Your task to perform on an android device: Show me the alarms in the clock app Image 0: 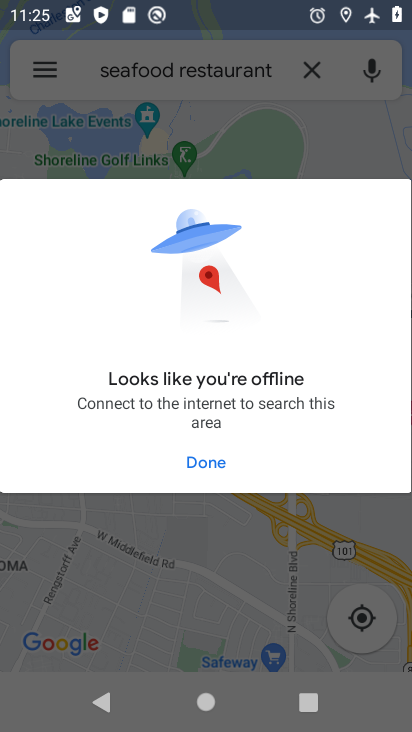
Step 0: task impossible